Your task to perform on an android device: Open Android settings Image 0: 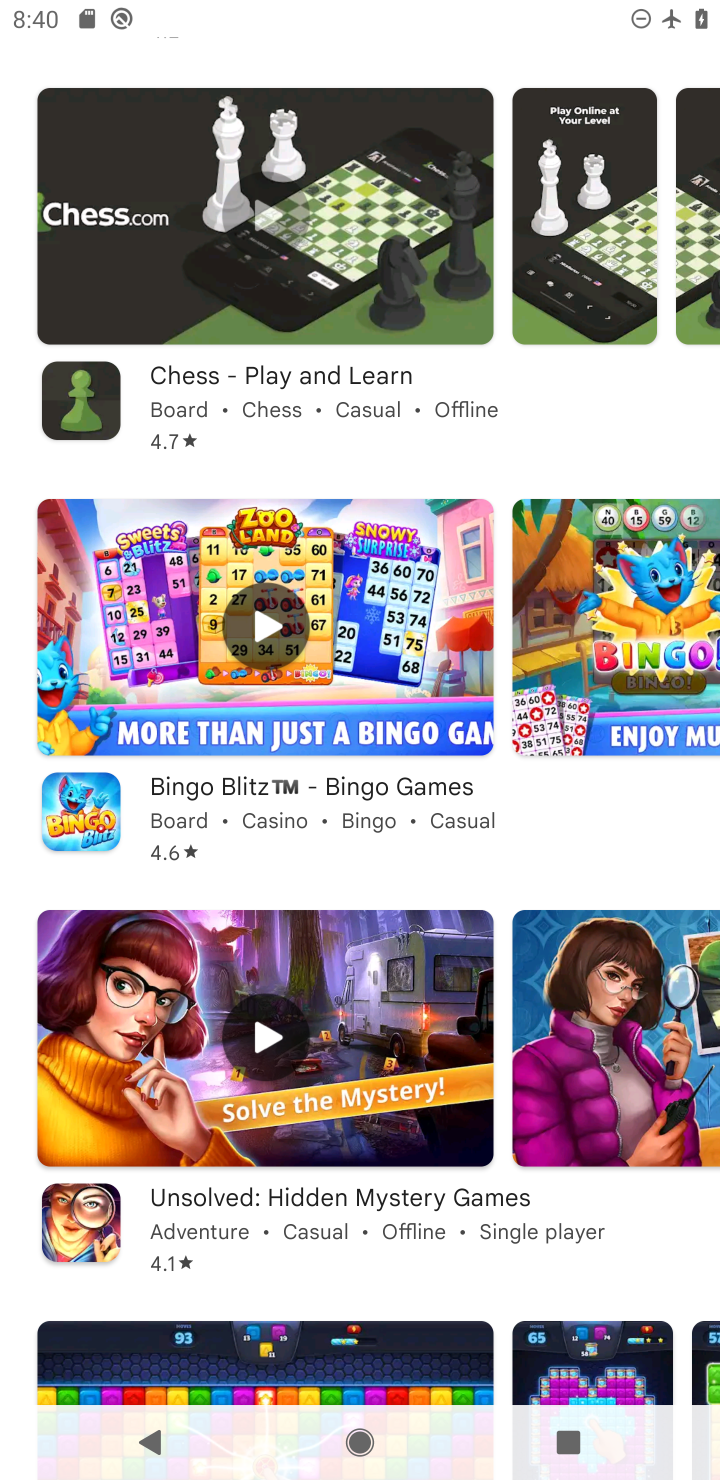
Step 0: press home button
Your task to perform on an android device: Open Android settings Image 1: 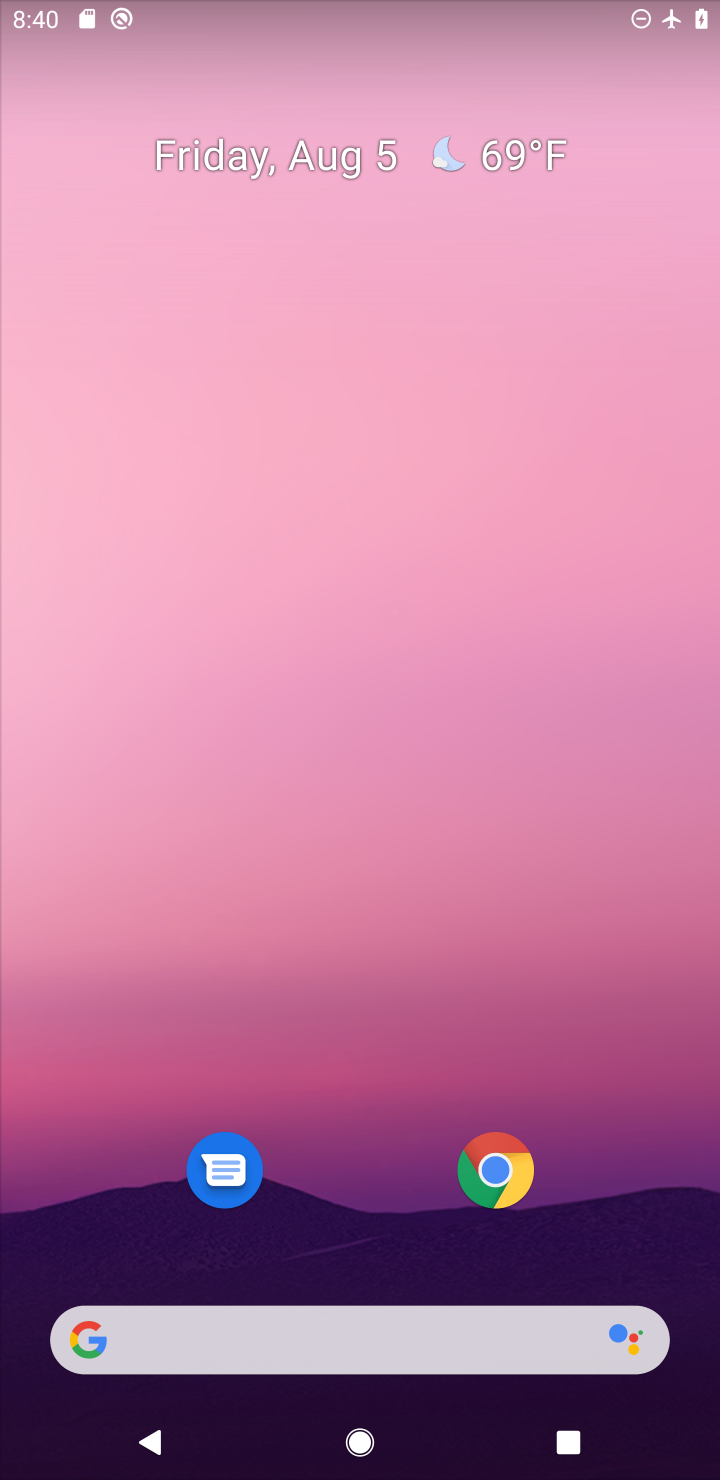
Step 1: drag from (685, 1244) to (633, 282)
Your task to perform on an android device: Open Android settings Image 2: 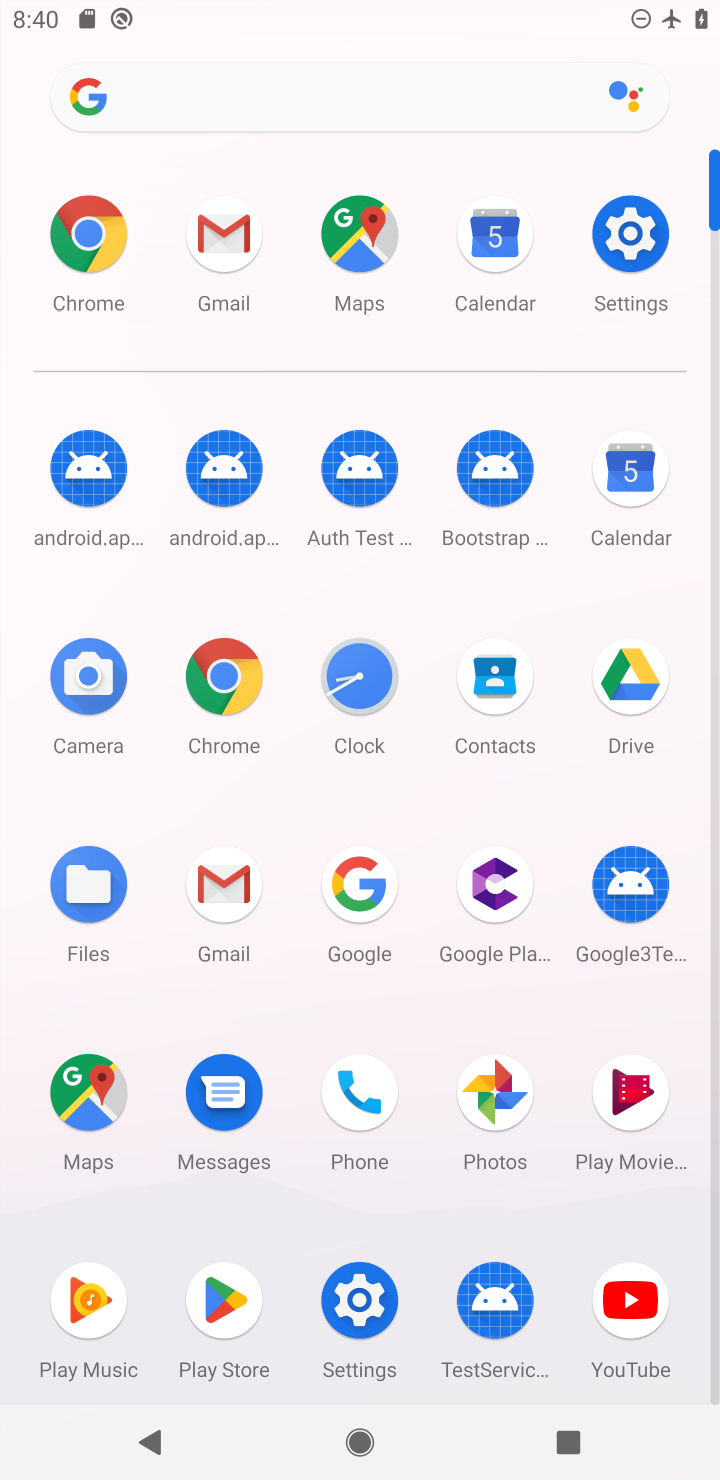
Step 2: click (353, 1301)
Your task to perform on an android device: Open Android settings Image 3: 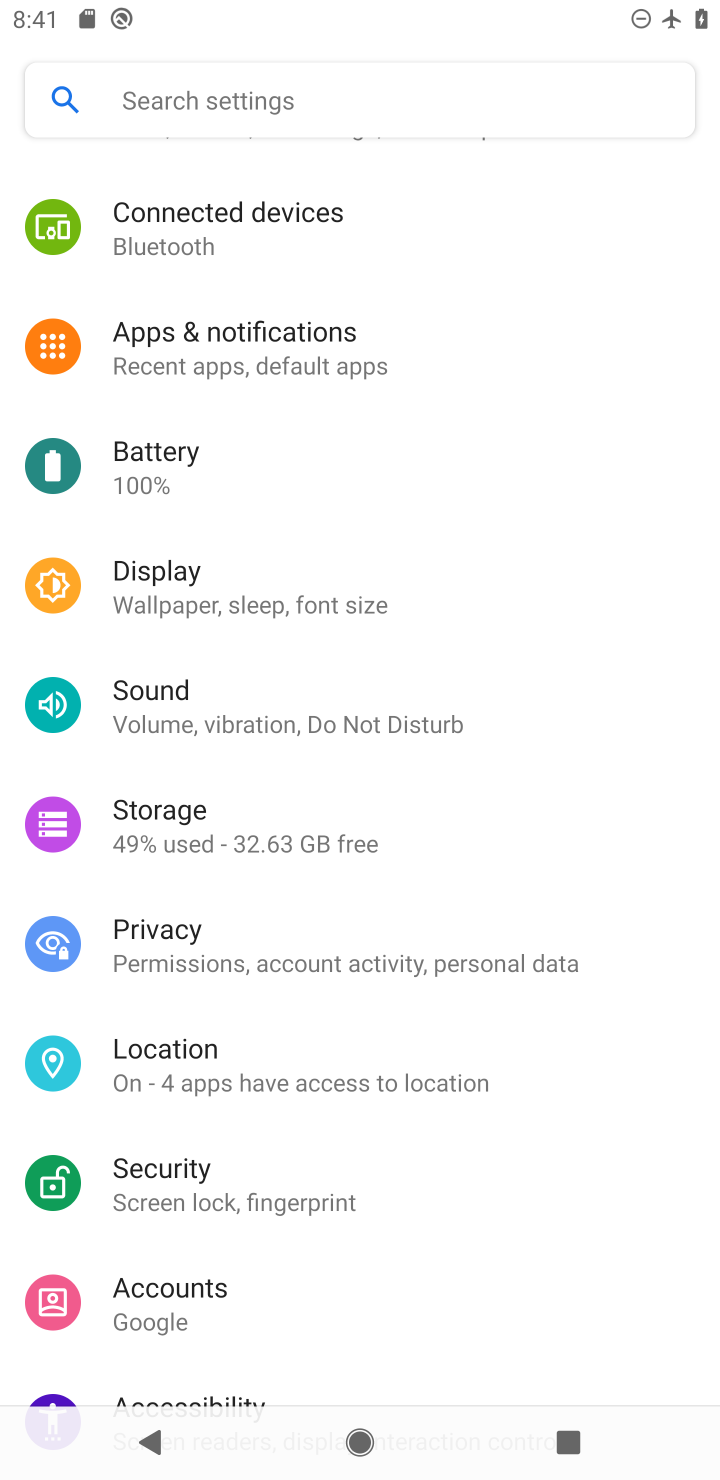
Step 3: drag from (559, 1313) to (587, 500)
Your task to perform on an android device: Open Android settings Image 4: 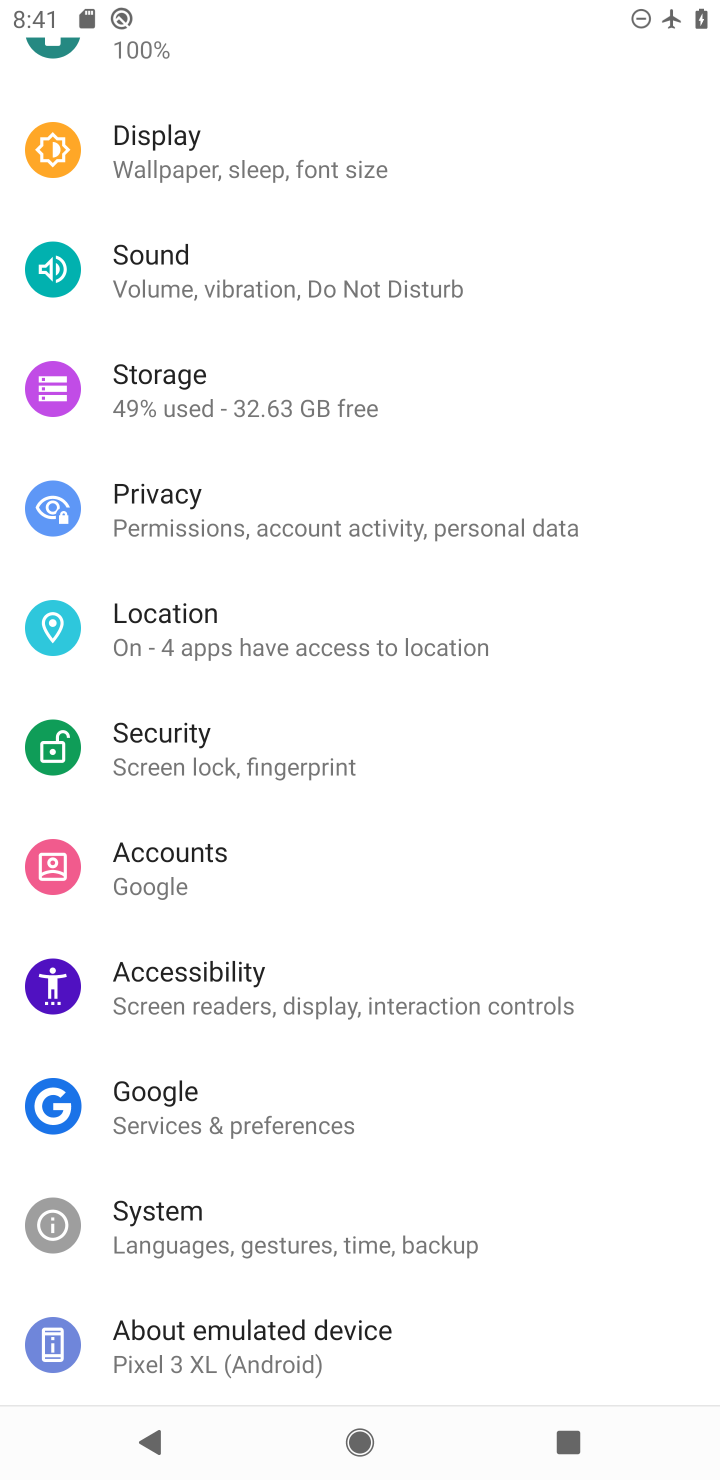
Step 4: click (178, 1325)
Your task to perform on an android device: Open Android settings Image 5: 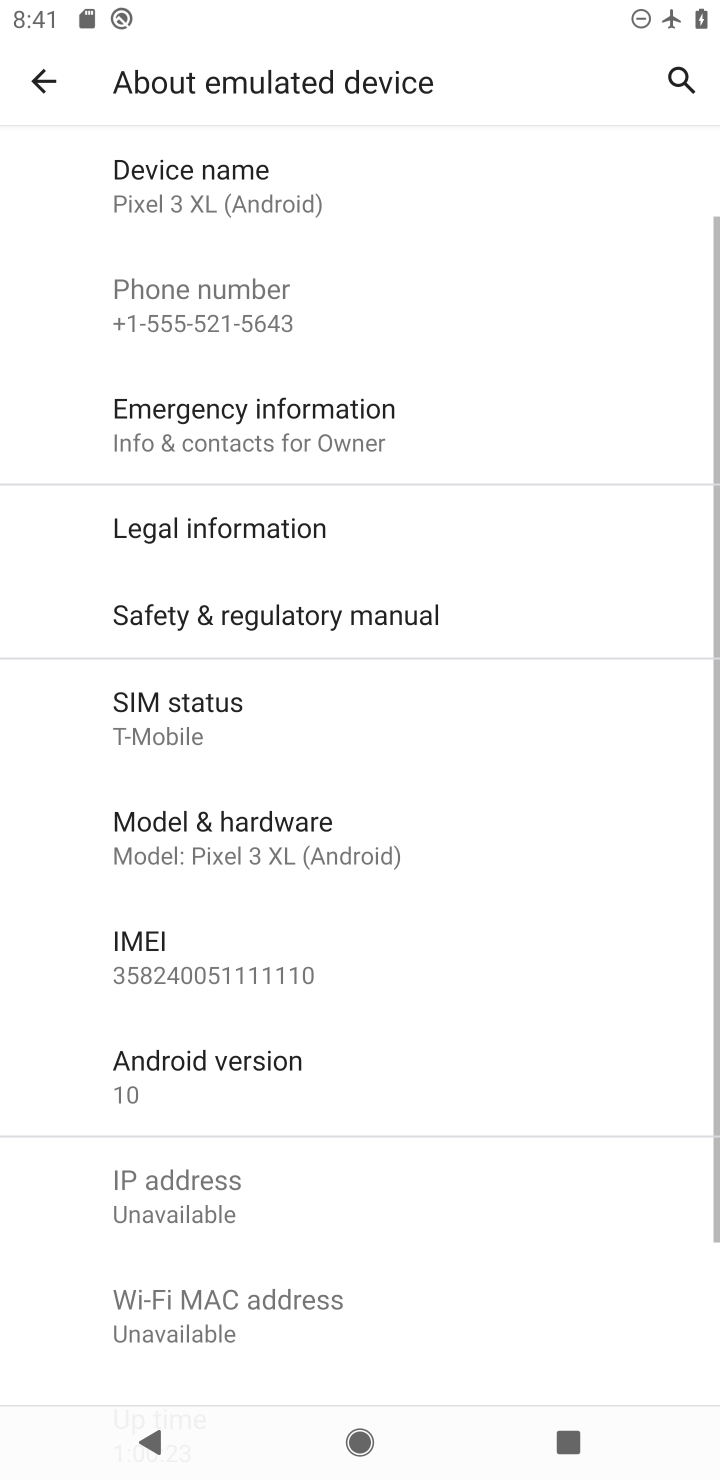
Step 5: task complete